Your task to perform on an android device: Clear the cart on target. Add razer deathadder to the cart on target Image 0: 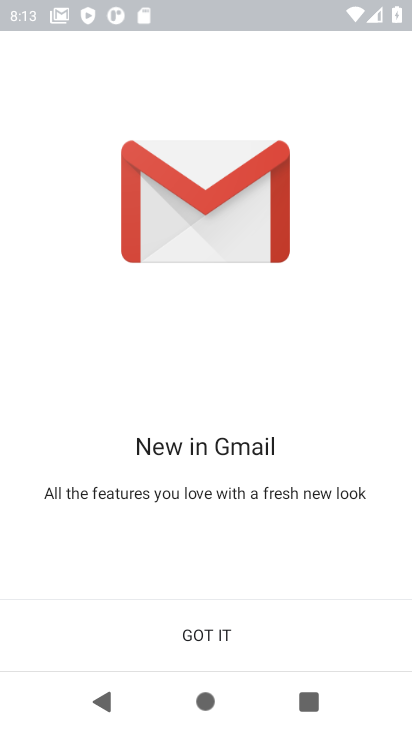
Step 0: press home button
Your task to perform on an android device: Clear the cart on target. Add razer deathadder to the cart on target Image 1: 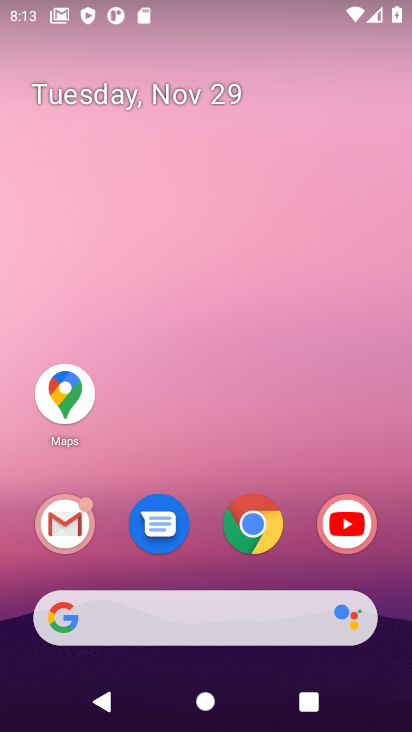
Step 1: click (255, 522)
Your task to perform on an android device: Clear the cart on target. Add razer deathadder to the cart on target Image 2: 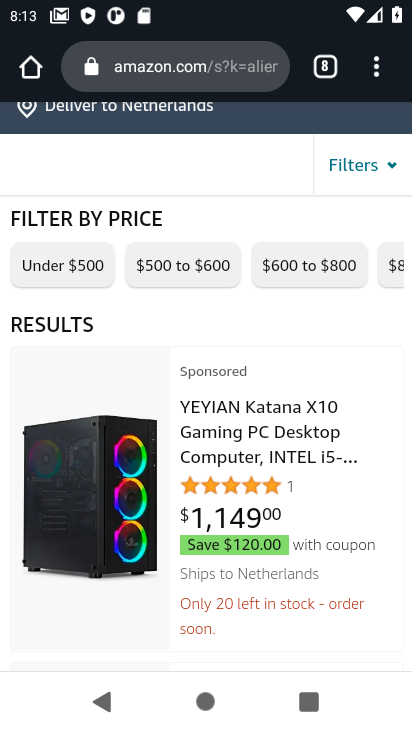
Step 2: click (177, 71)
Your task to perform on an android device: Clear the cart on target. Add razer deathadder to the cart on target Image 3: 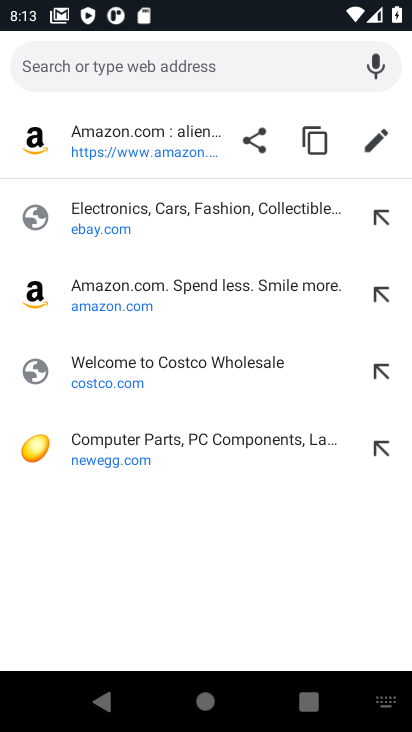
Step 3: type "target.com"
Your task to perform on an android device: Clear the cart on target. Add razer deathadder to the cart on target Image 4: 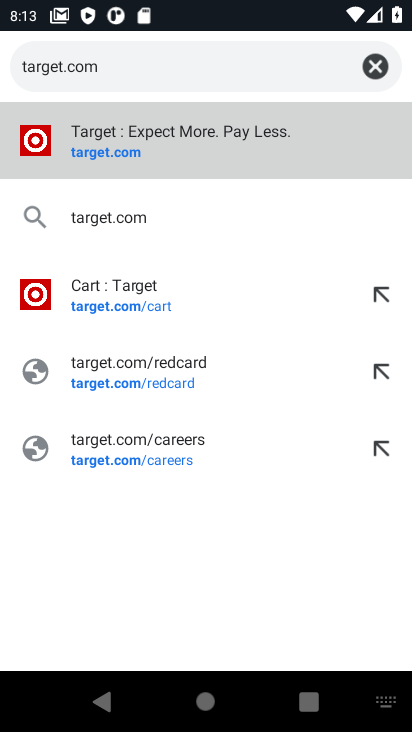
Step 4: click (84, 132)
Your task to perform on an android device: Clear the cart on target. Add razer deathadder to the cart on target Image 5: 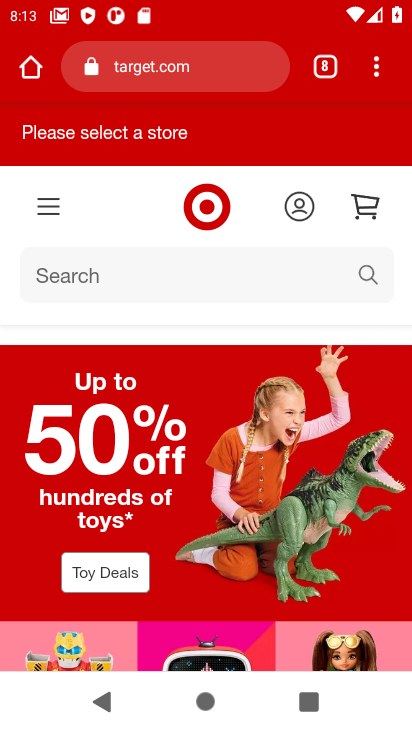
Step 5: click (367, 202)
Your task to perform on an android device: Clear the cart on target. Add razer deathadder to the cart on target Image 6: 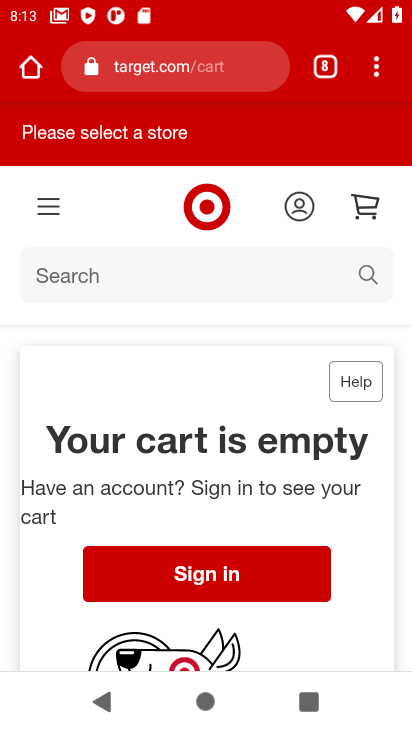
Step 6: click (72, 269)
Your task to perform on an android device: Clear the cart on target. Add razer deathadder to the cart on target Image 7: 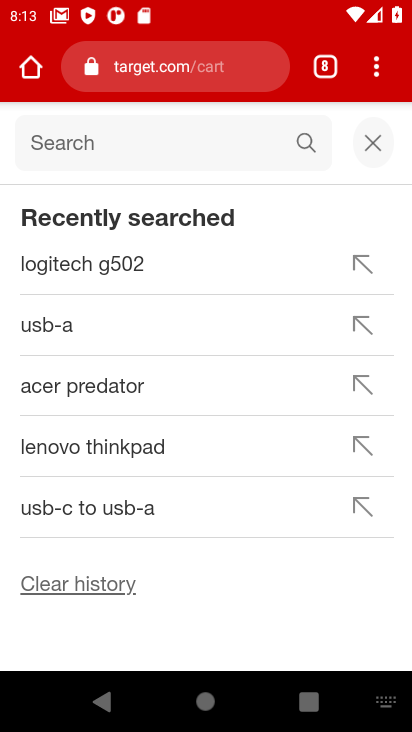
Step 7: type "razer deathadder"
Your task to perform on an android device: Clear the cart on target. Add razer deathadder to the cart on target Image 8: 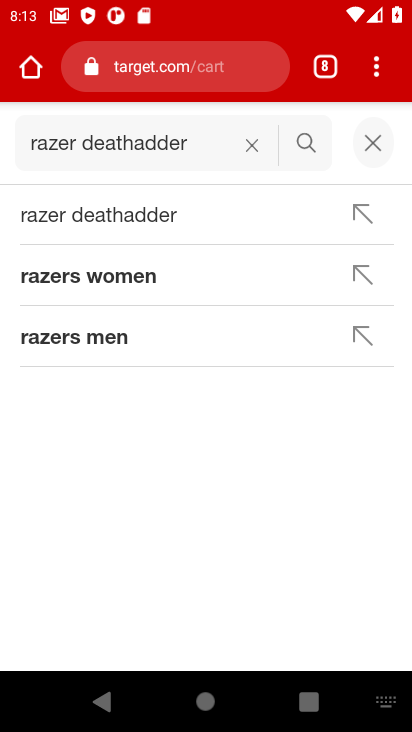
Step 8: click (124, 216)
Your task to perform on an android device: Clear the cart on target. Add razer deathadder to the cart on target Image 9: 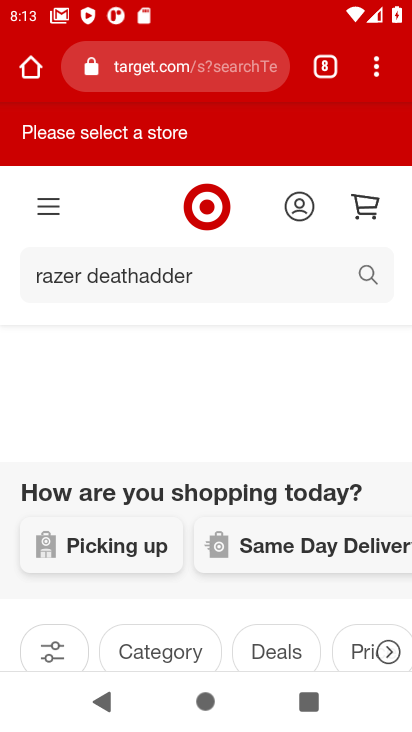
Step 9: drag from (317, 496) to (325, 132)
Your task to perform on an android device: Clear the cart on target. Add razer deathadder to the cart on target Image 10: 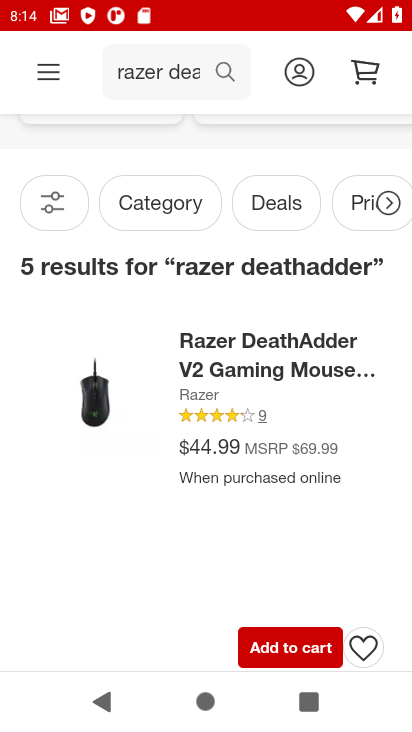
Step 10: drag from (225, 512) to (268, 333)
Your task to perform on an android device: Clear the cart on target. Add razer deathadder to the cart on target Image 11: 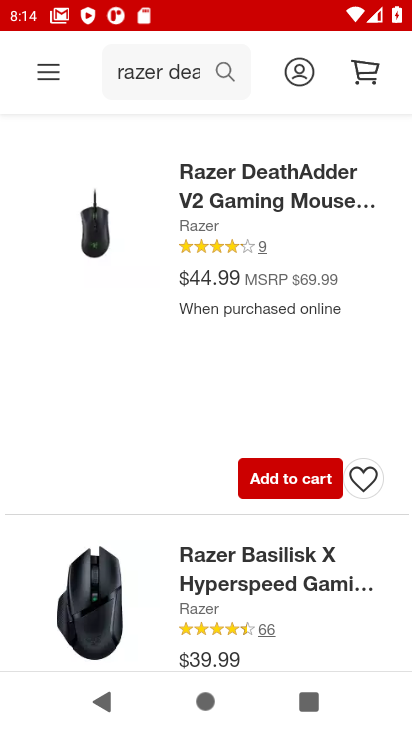
Step 11: click (292, 487)
Your task to perform on an android device: Clear the cart on target. Add razer deathadder to the cart on target Image 12: 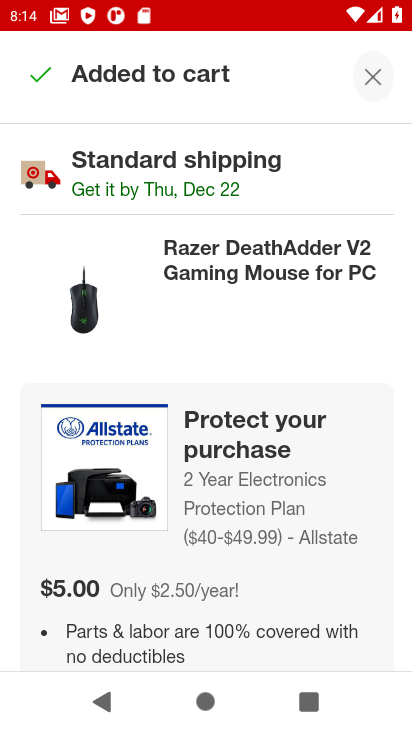
Step 12: task complete